Your task to perform on an android device: change alarm snooze length Image 0: 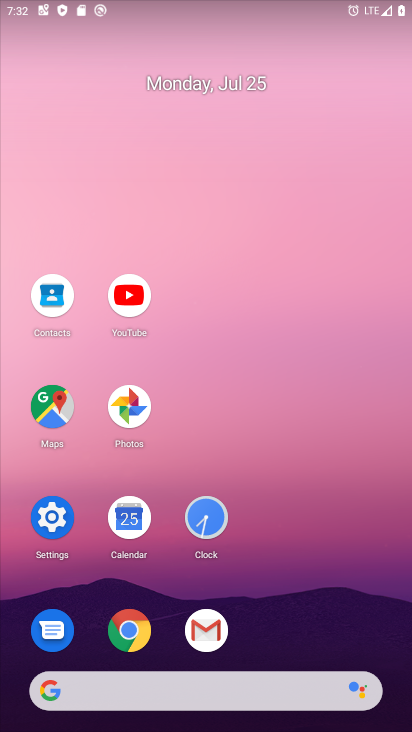
Step 0: click (205, 522)
Your task to perform on an android device: change alarm snooze length Image 1: 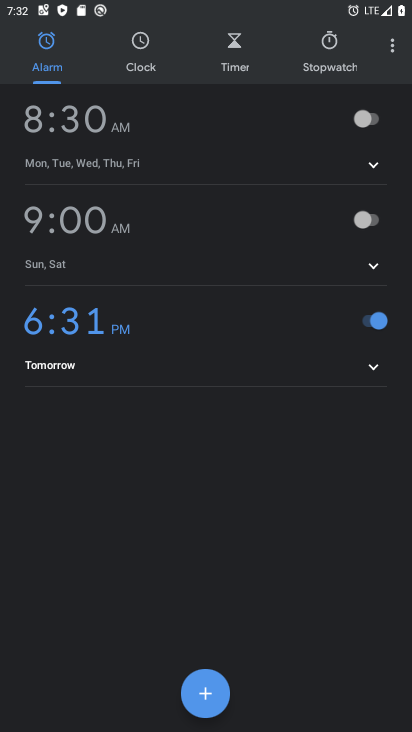
Step 1: click (398, 45)
Your task to perform on an android device: change alarm snooze length Image 2: 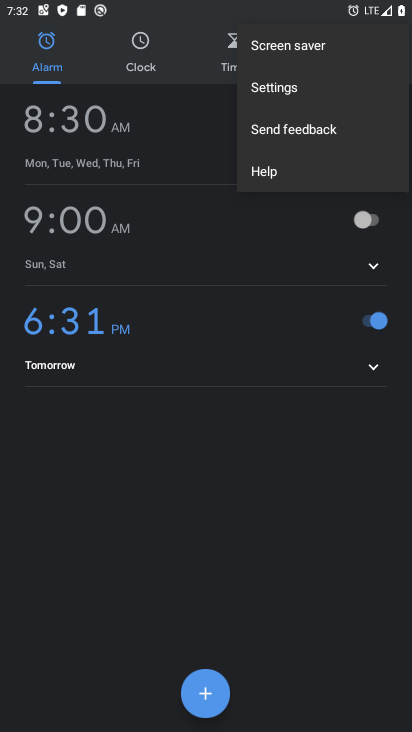
Step 2: click (265, 92)
Your task to perform on an android device: change alarm snooze length Image 3: 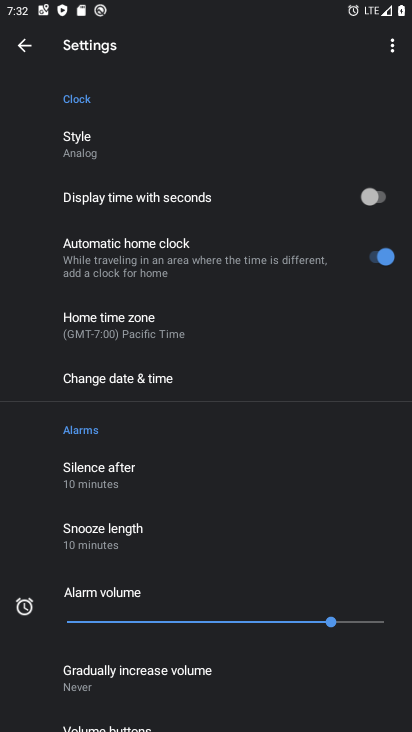
Step 3: drag from (170, 541) to (165, 278)
Your task to perform on an android device: change alarm snooze length Image 4: 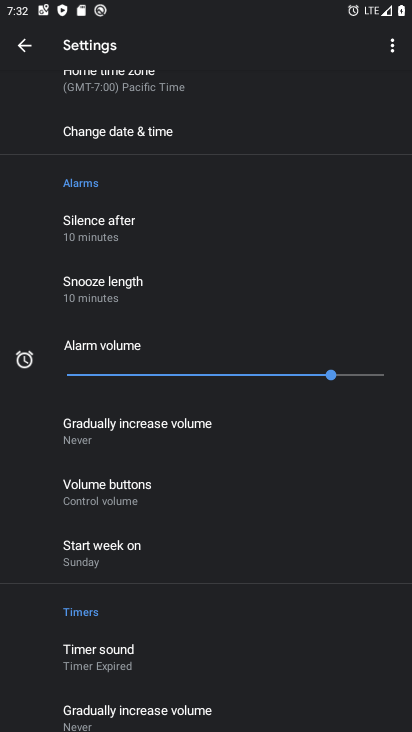
Step 4: click (108, 275)
Your task to perform on an android device: change alarm snooze length Image 5: 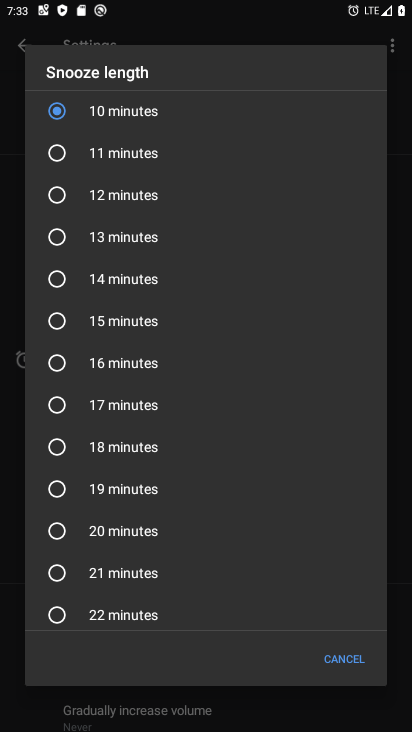
Step 5: click (55, 236)
Your task to perform on an android device: change alarm snooze length Image 6: 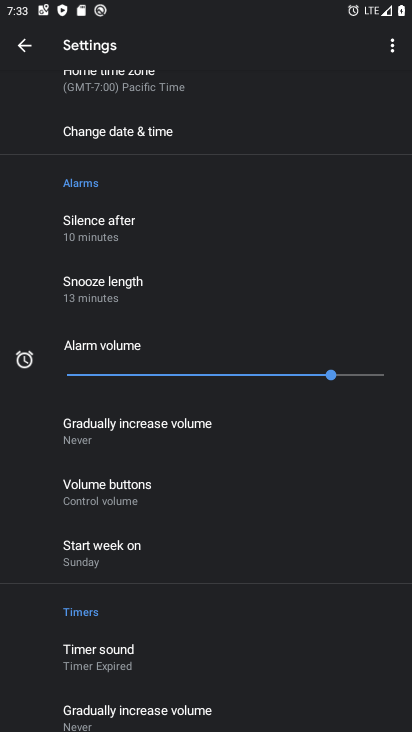
Step 6: task complete